Your task to perform on an android device: What's on my calendar tomorrow? Image 0: 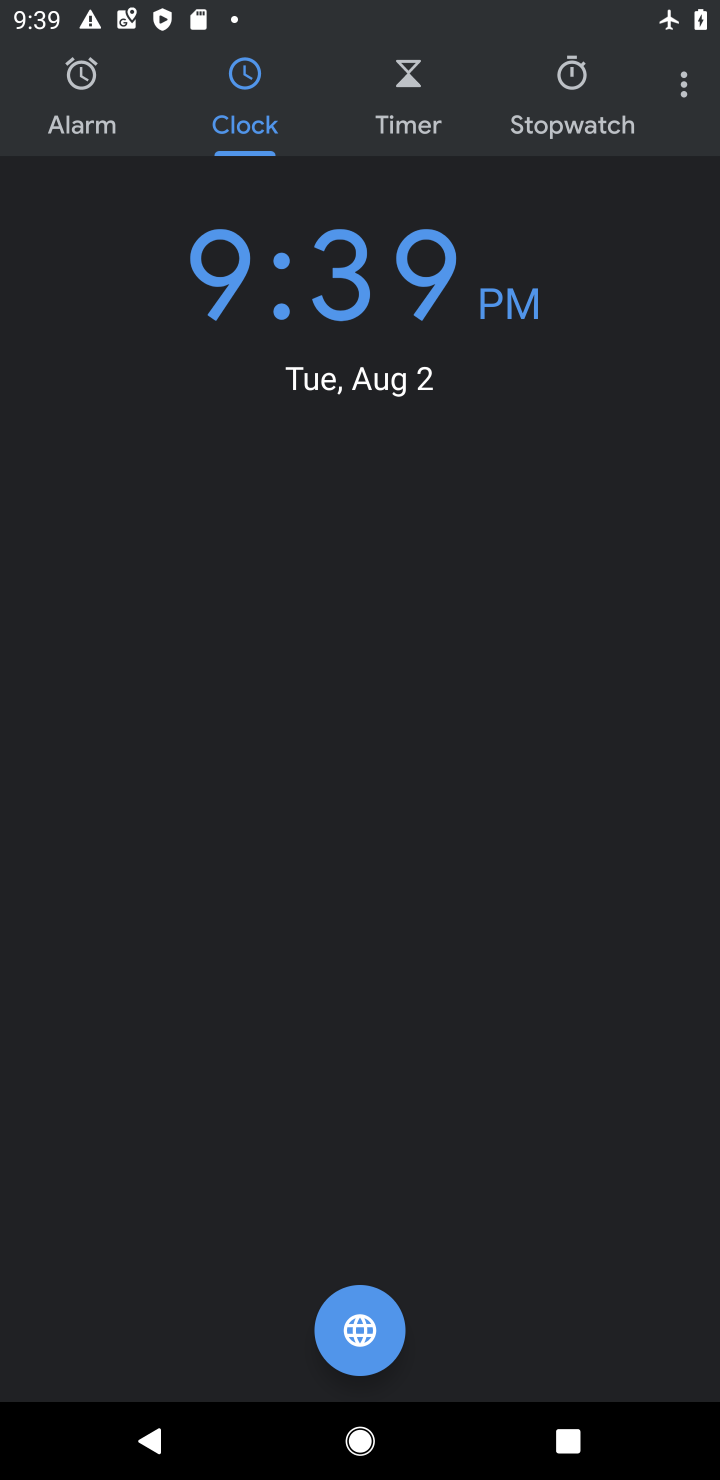
Step 0: press home button
Your task to perform on an android device: What's on my calendar tomorrow? Image 1: 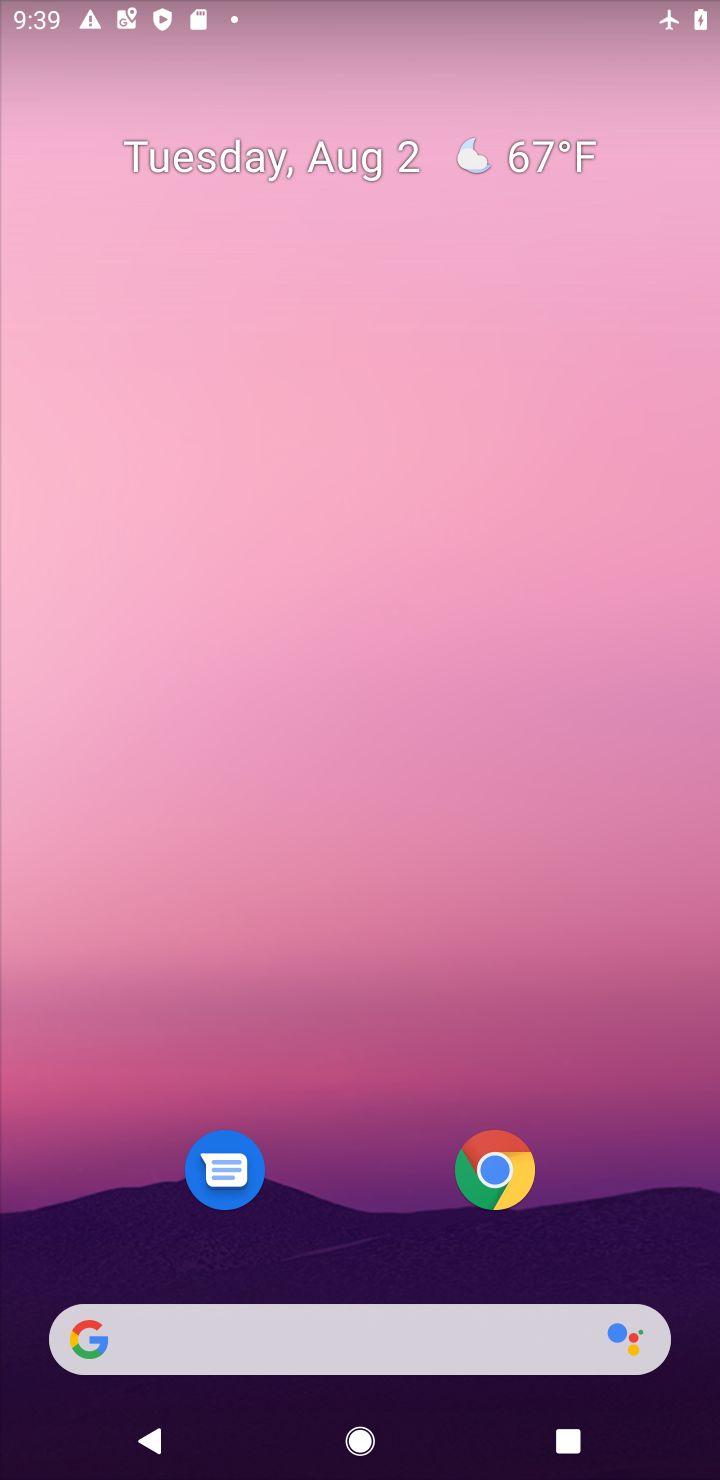
Step 1: drag from (409, 762) to (470, 242)
Your task to perform on an android device: What's on my calendar tomorrow? Image 2: 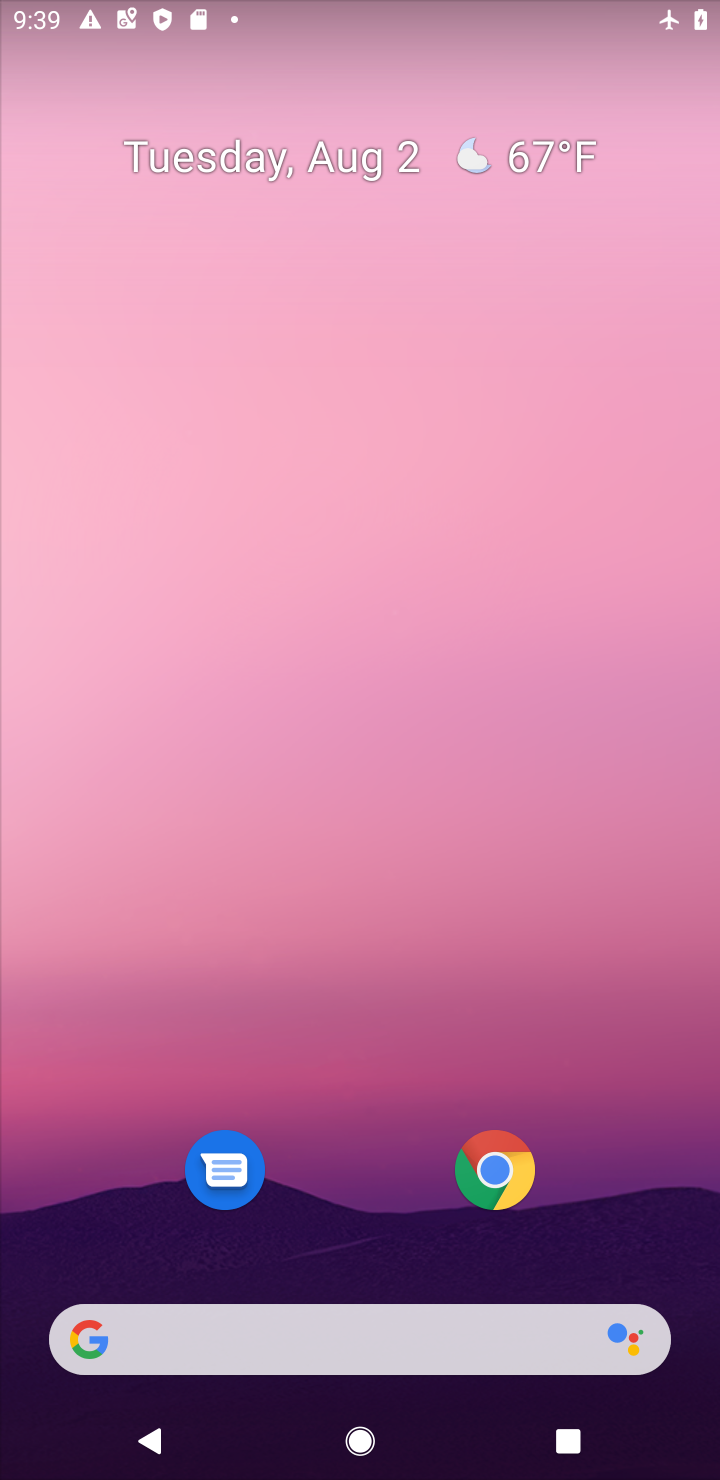
Step 2: drag from (330, 389) to (382, 253)
Your task to perform on an android device: What's on my calendar tomorrow? Image 3: 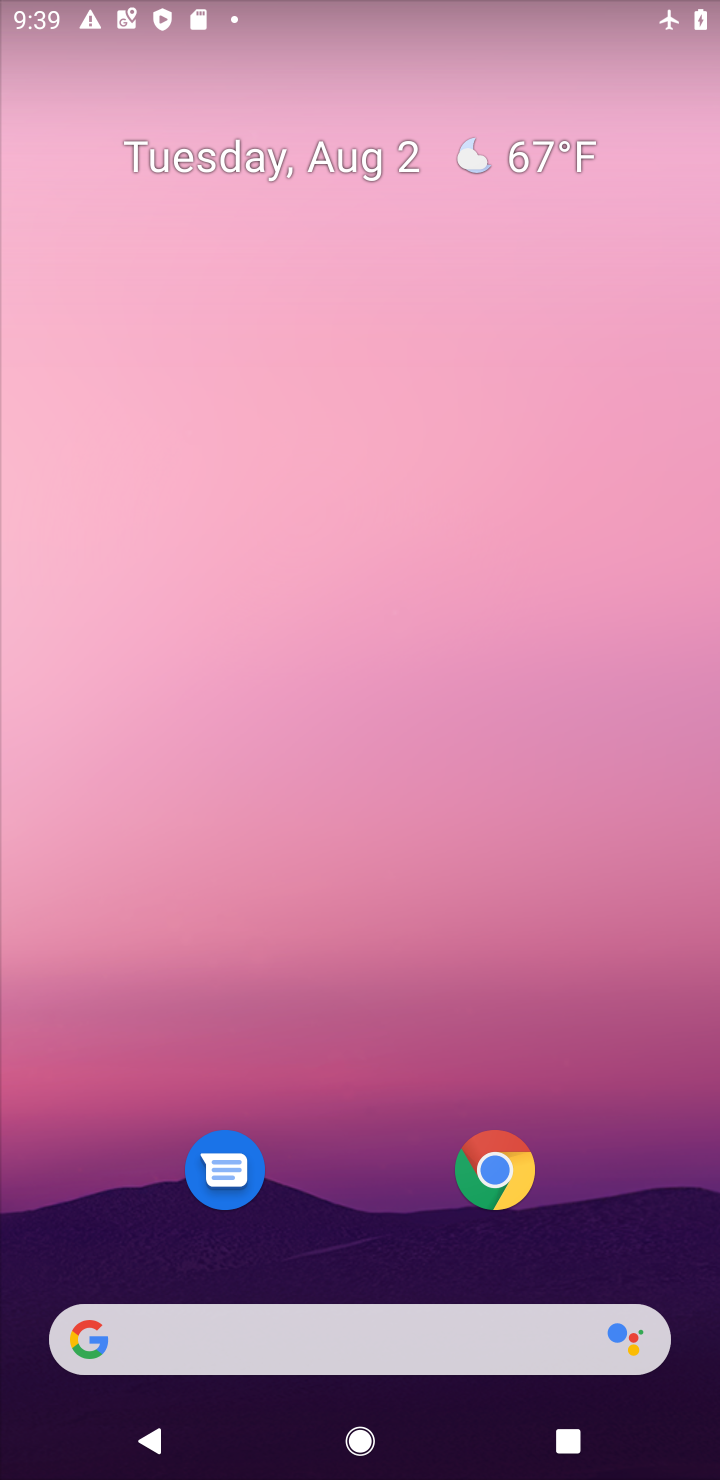
Step 3: drag from (340, 748) to (368, 337)
Your task to perform on an android device: What's on my calendar tomorrow? Image 4: 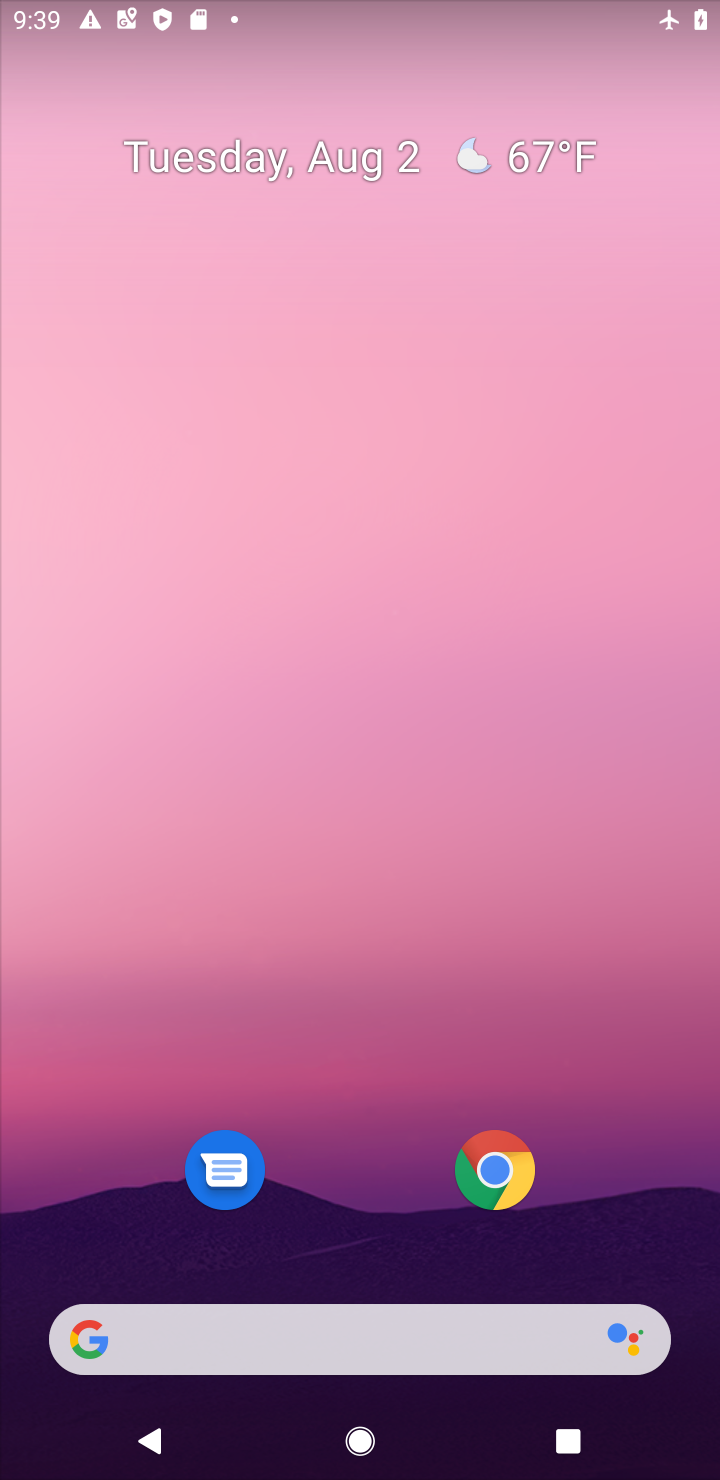
Step 4: drag from (407, 430) to (418, 280)
Your task to perform on an android device: What's on my calendar tomorrow? Image 5: 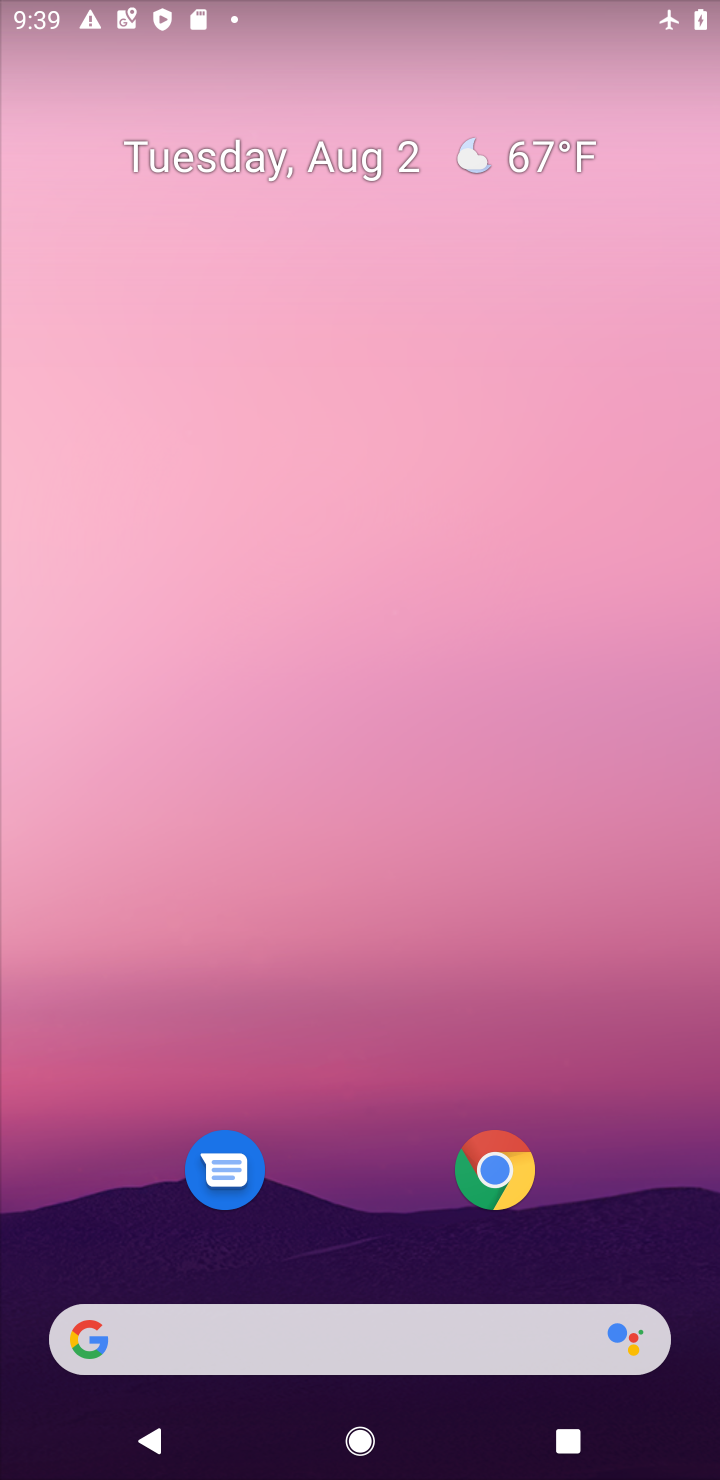
Step 5: click (383, 225)
Your task to perform on an android device: What's on my calendar tomorrow? Image 6: 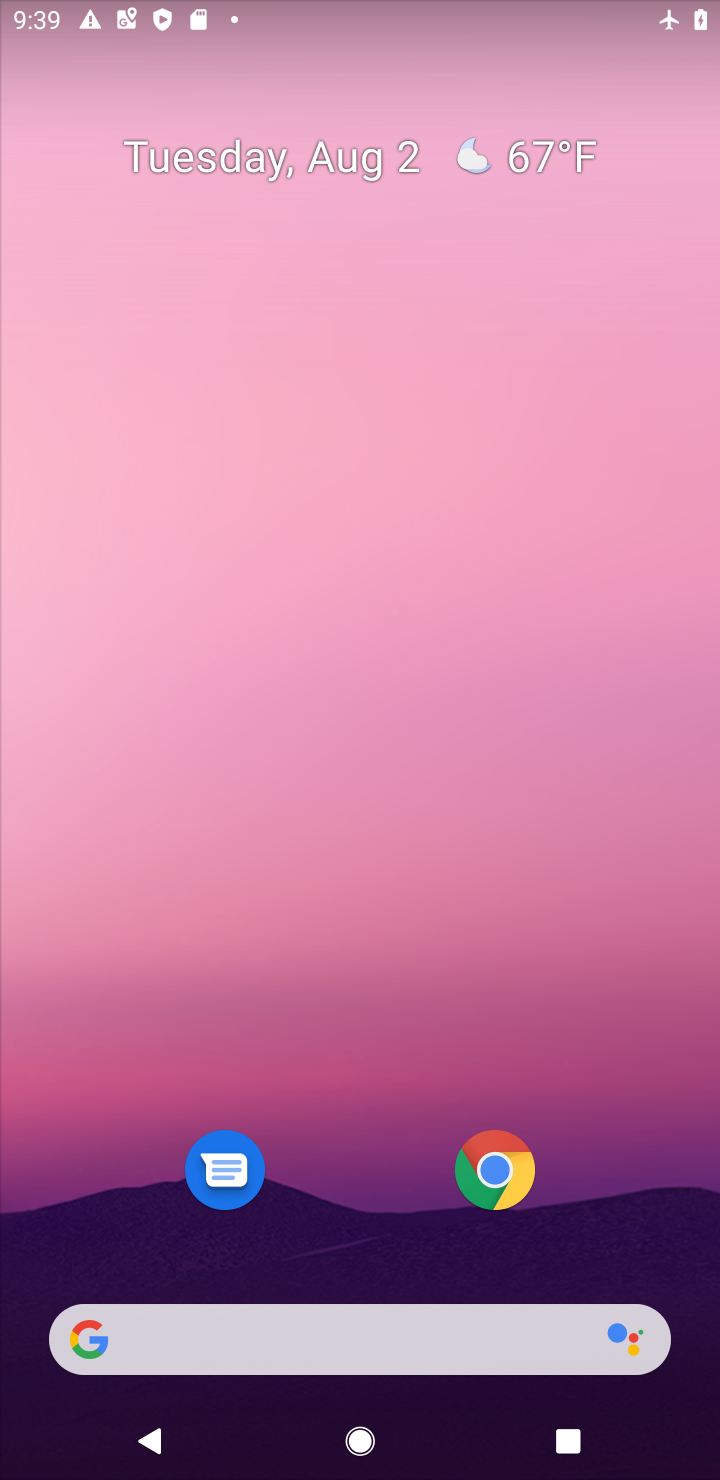
Step 6: drag from (307, 1256) to (284, 18)
Your task to perform on an android device: What's on my calendar tomorrow? Image 7: 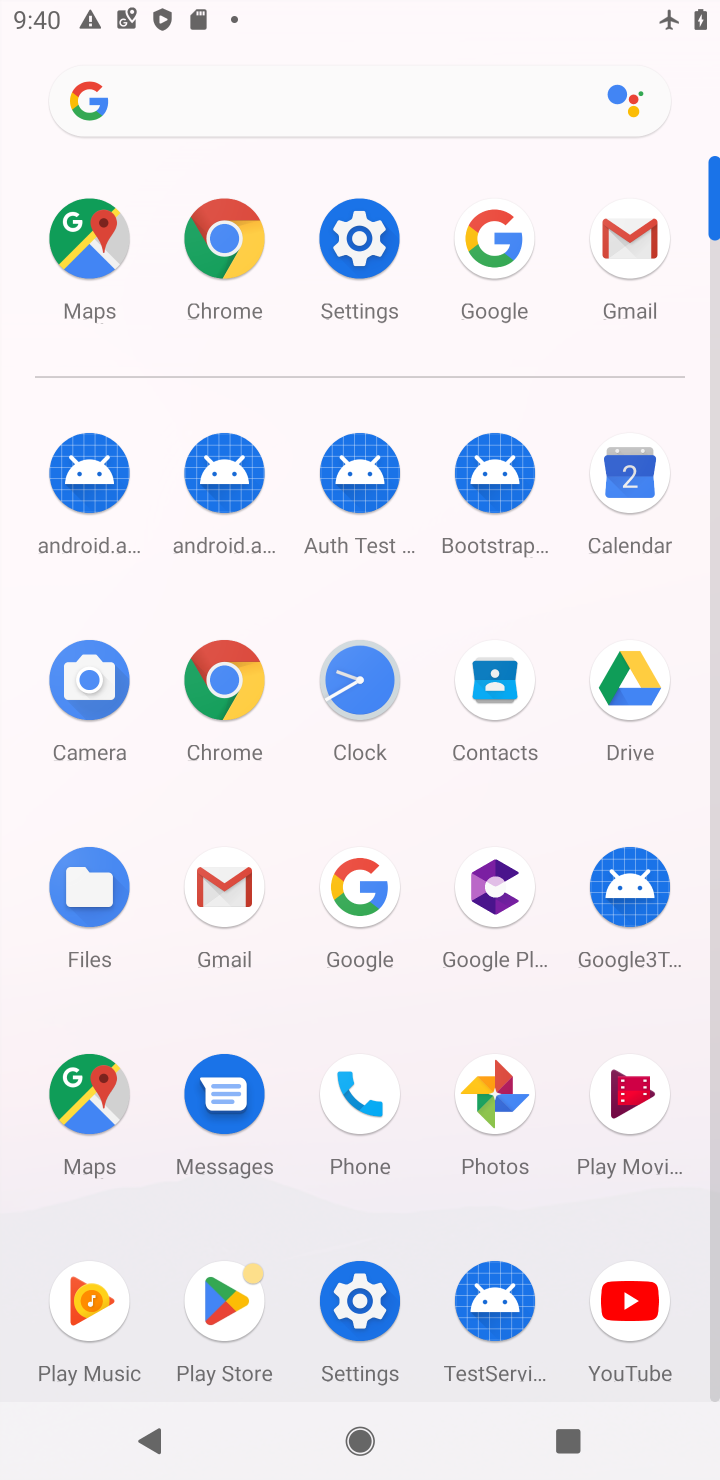
Step 7: click (635, 493)
Your task to perform on an android device: What's on my calendar tomorrow? Image 8: 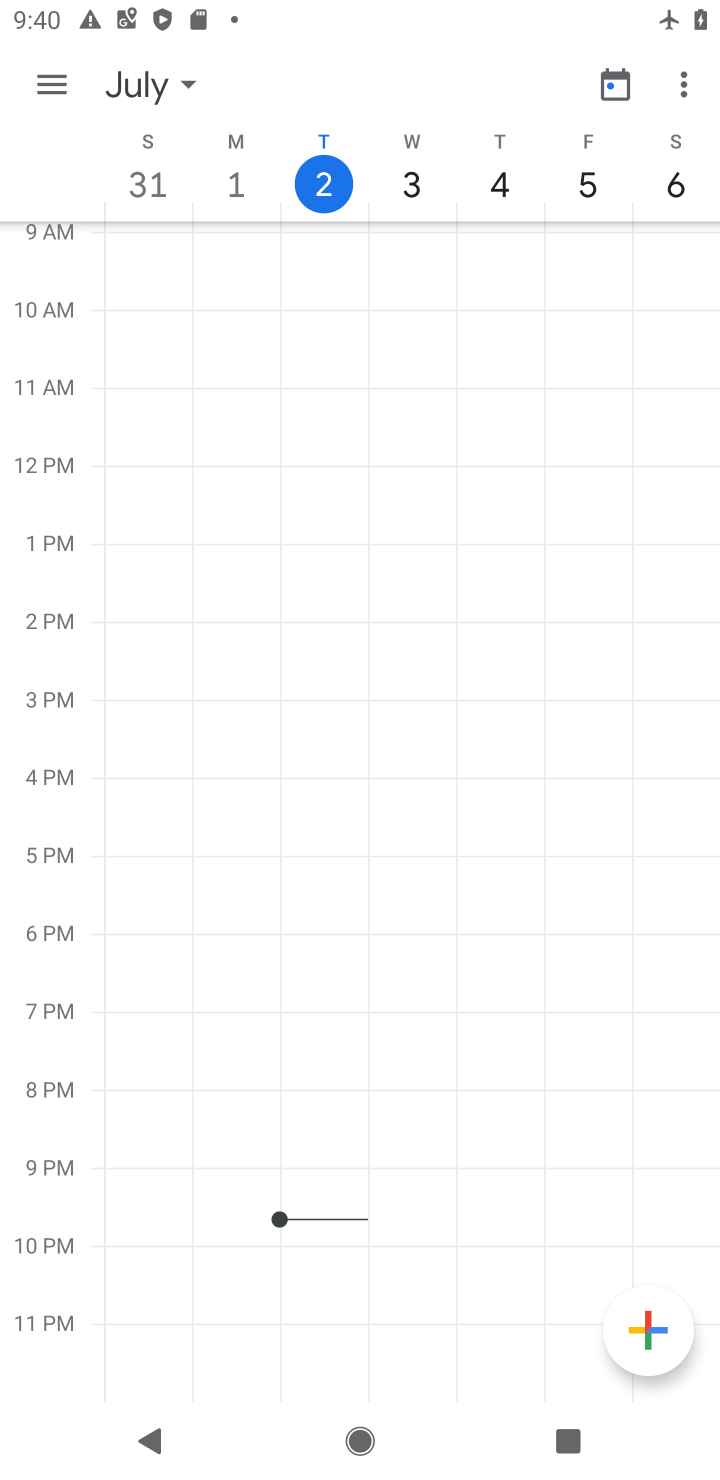
Step 8: click (411, 181)
Your task to perform on an android device: What's on my calendar tomorrow? Image 9: 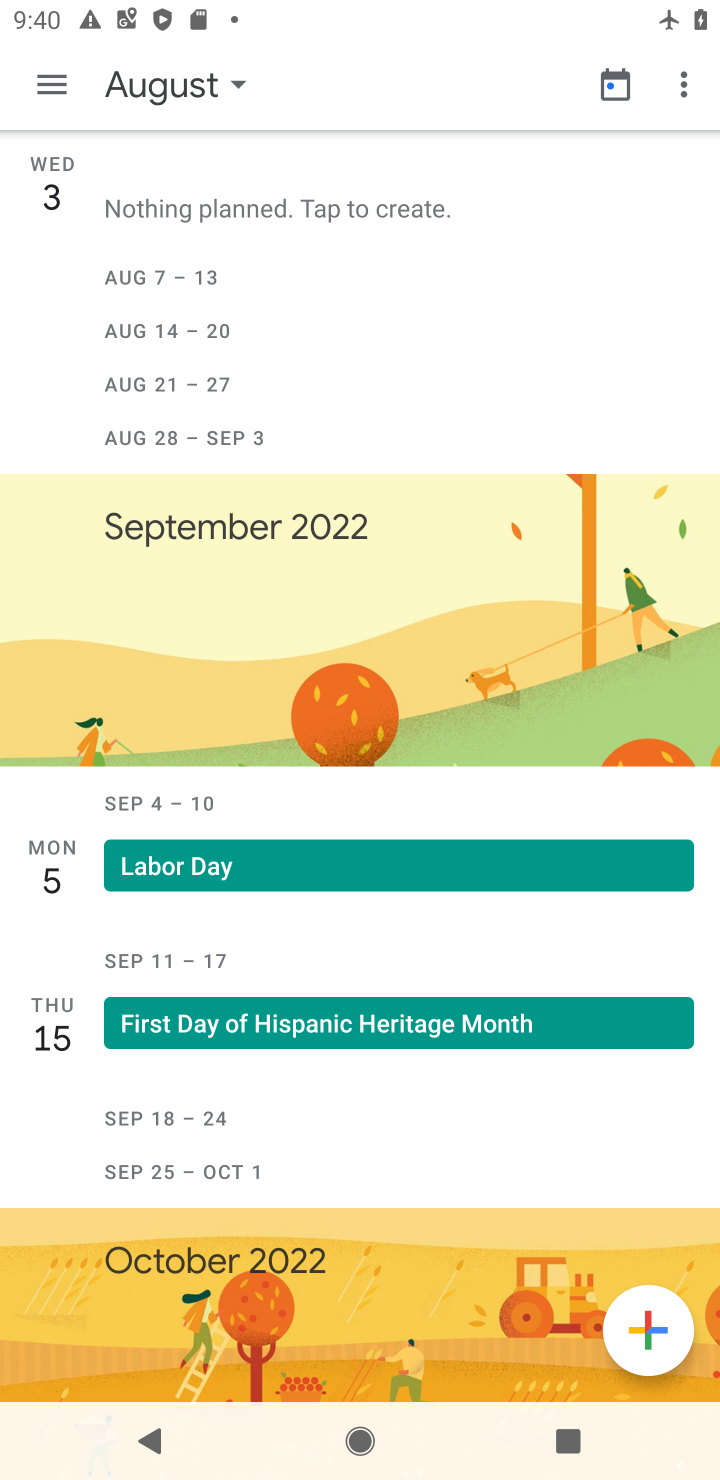
Step 9: task complete